Your task to perform on an android device: toggle location history Image 0: 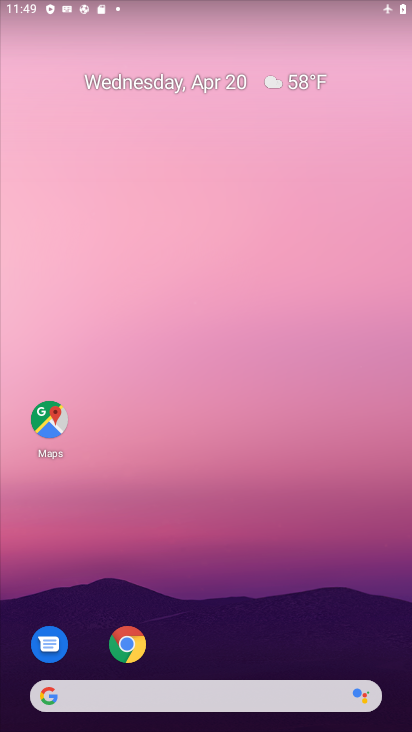
Step 0: drag from (163, 633) to (186, 47)
Your task to perform on an android device: toggle location history Image 1: 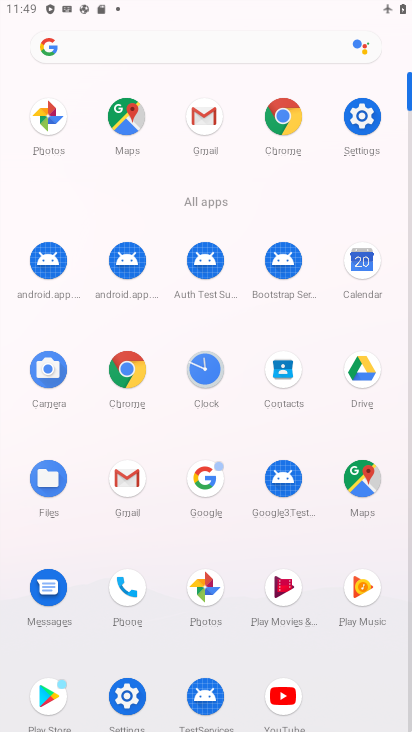
Step 1: click (361, 121)
Your task to perform on an android device: toggle location history Image 2: 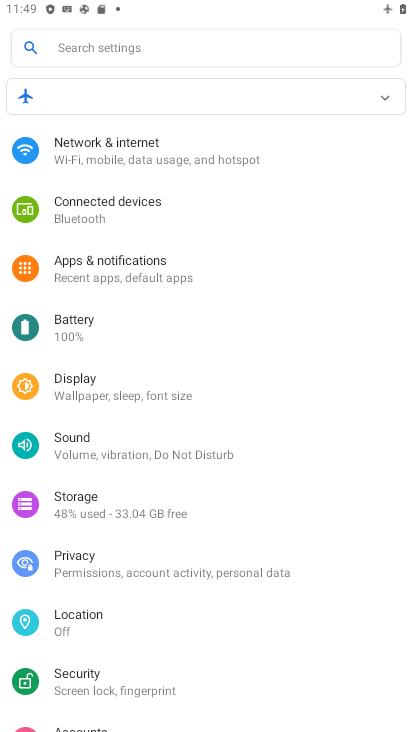
Step 2: click (81, 626)
Your task to perform on an android device: toggle location history Image 3: 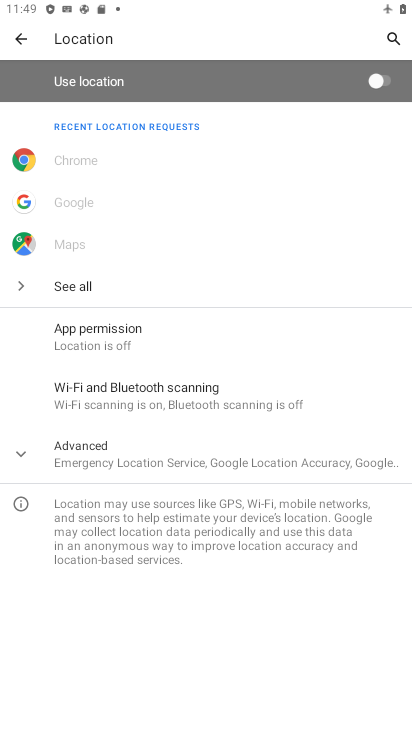
Step 3: click (16, 457)
Your task to perform on an android device: toggle location history Image 4: 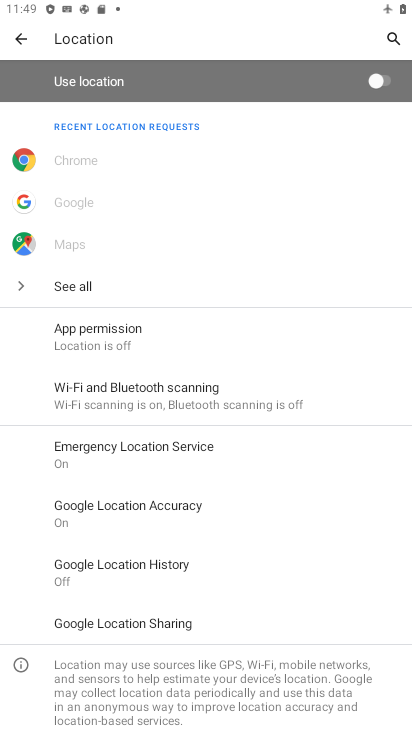
Step 4: click (119, 565)
Your task to perform on an android device: toggle location history Image 5: 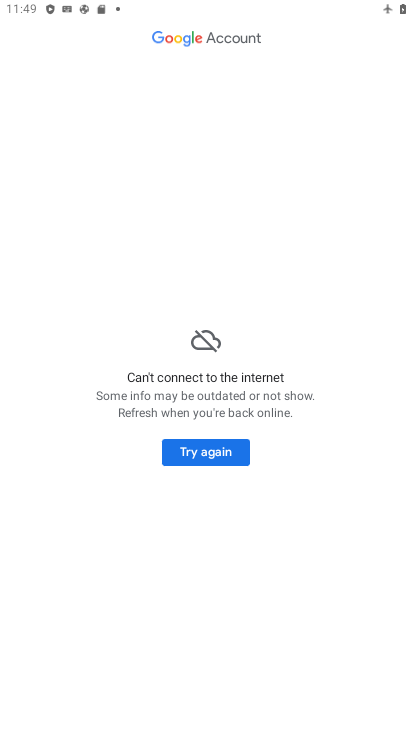
Step 5: click (178, 454)
Your task to perform on an android device: toggle location history Image 6: 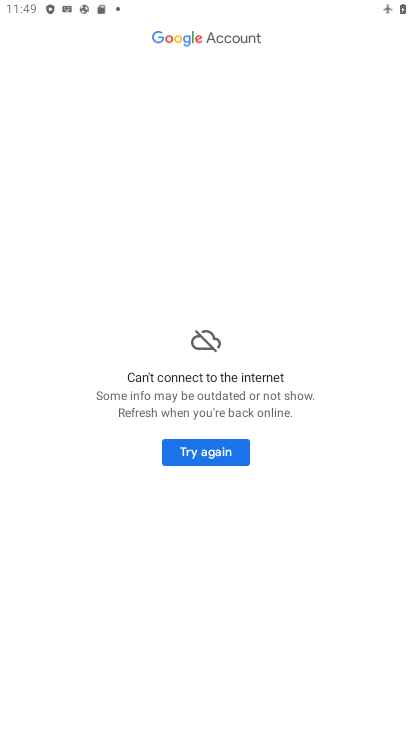
Step 6: task complete